Your task to perform on an android device: Clear all items from cart on target.com. Add apple airpods to the cart on target.com Image 0: 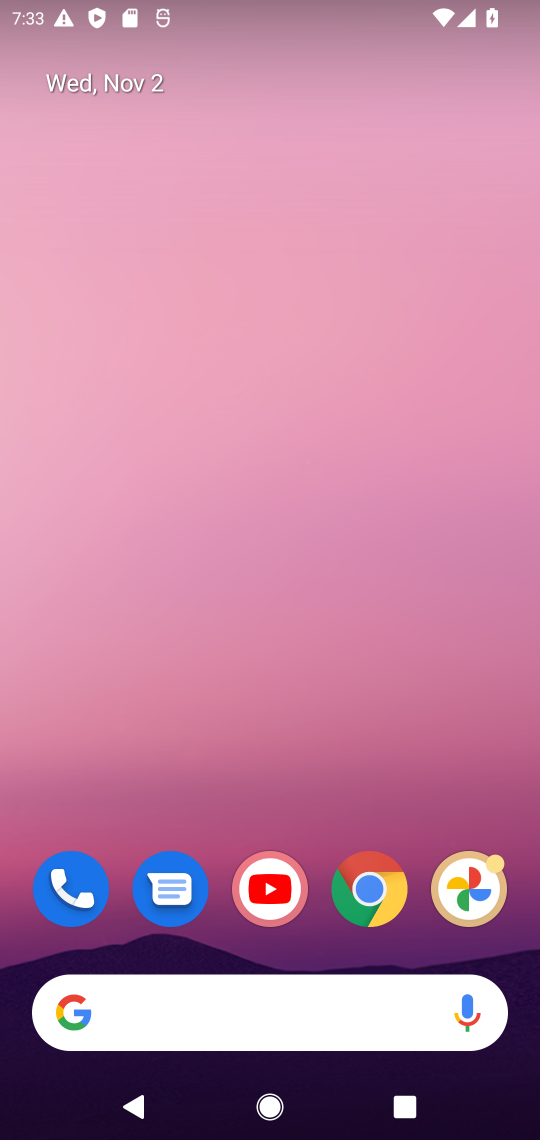
Step 0: press home button
Your task to perform on an android device: Clear all items from cart on target.com. Add apple airpods to the cart on target.com Image 1: 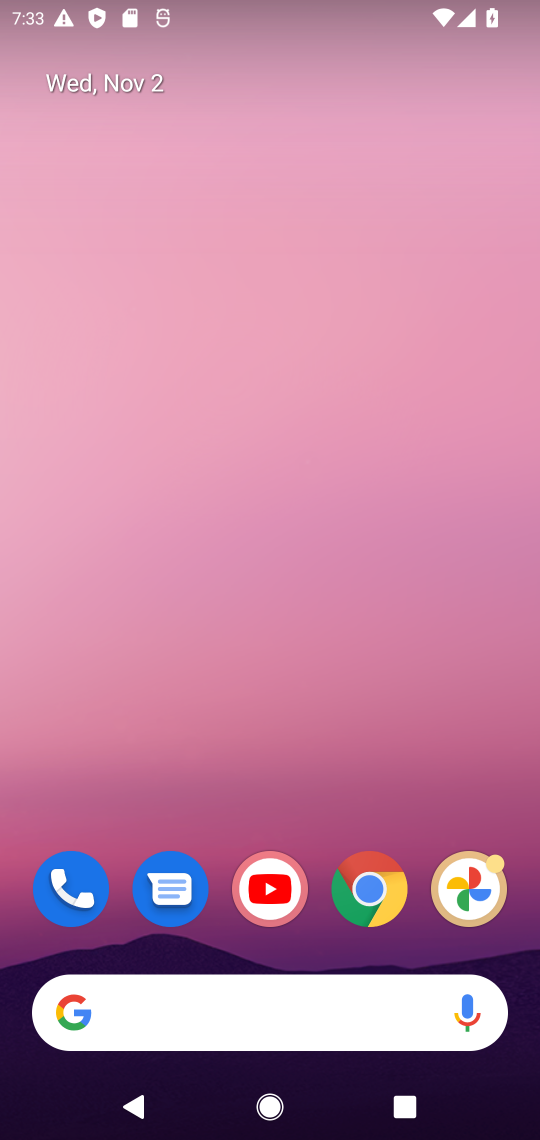
Step 1: drag from (310, 847) to (323, 45)
Your task to perform on an android device: Clear all items from cart on target.com. Add apple airpods to the cart on target.com Image 2: 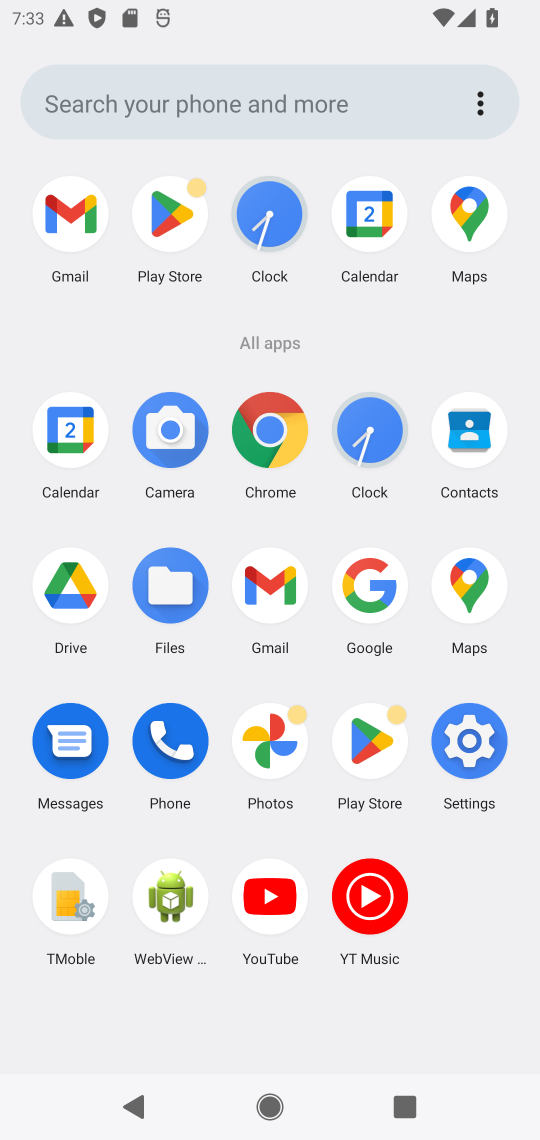
Step 2: click (266, 422)
Your task to perform on an android device: Clear all items from cart on target.com. Add apple airpods to the cart on target.com Image 3: 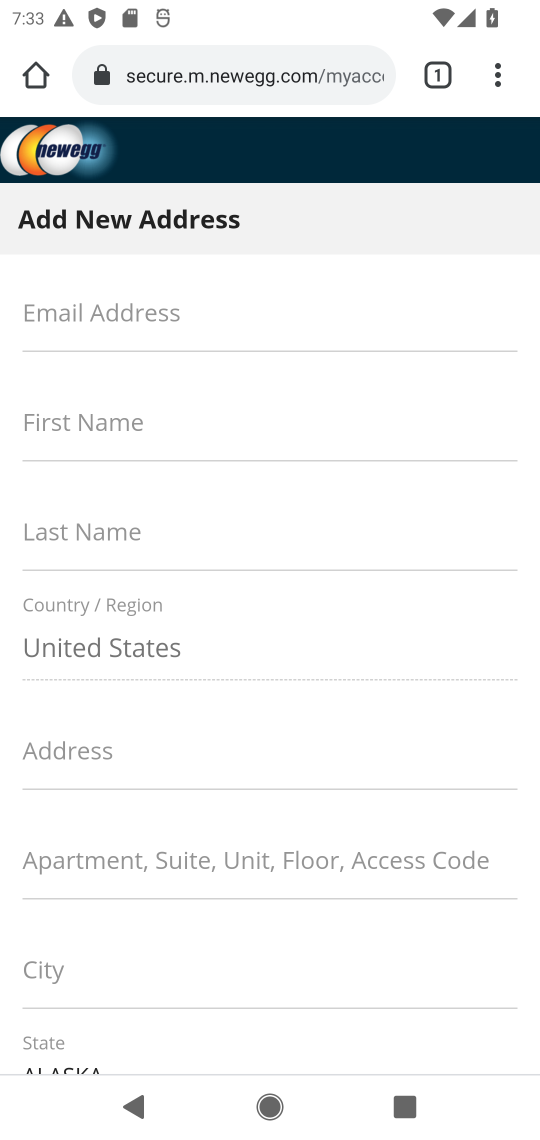
Step 3: click (210, 60)
Your task to perform on an android device: Clear all items from cart on target.com. Add apple airpods to the cart on target.com Image 4: 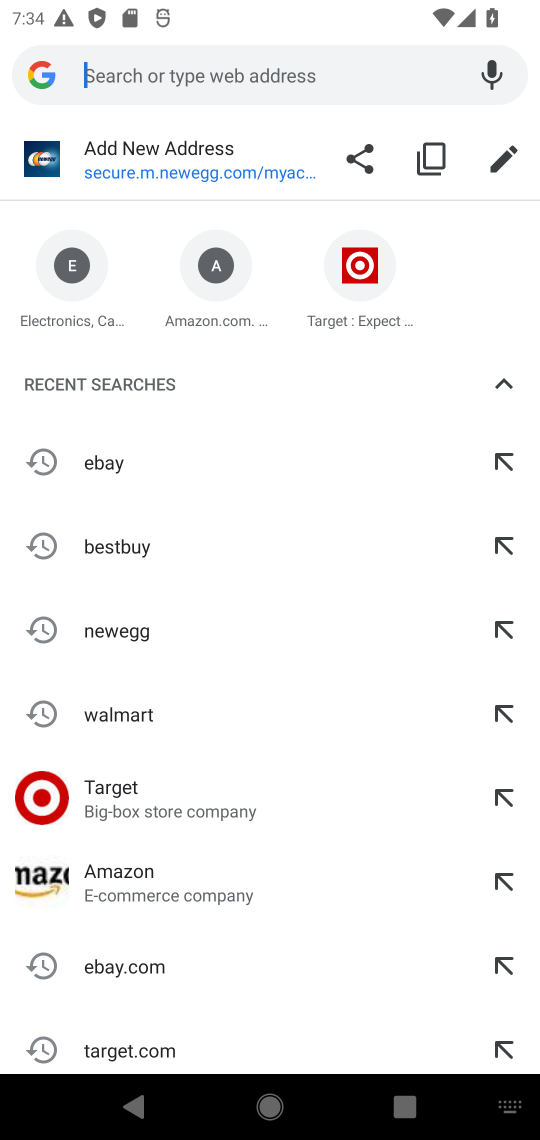
Step 4: type "target"
Your task to perform on an android device: Clear all items from cart on target.com. Add apple airpods to the cart on target.com Image 5: 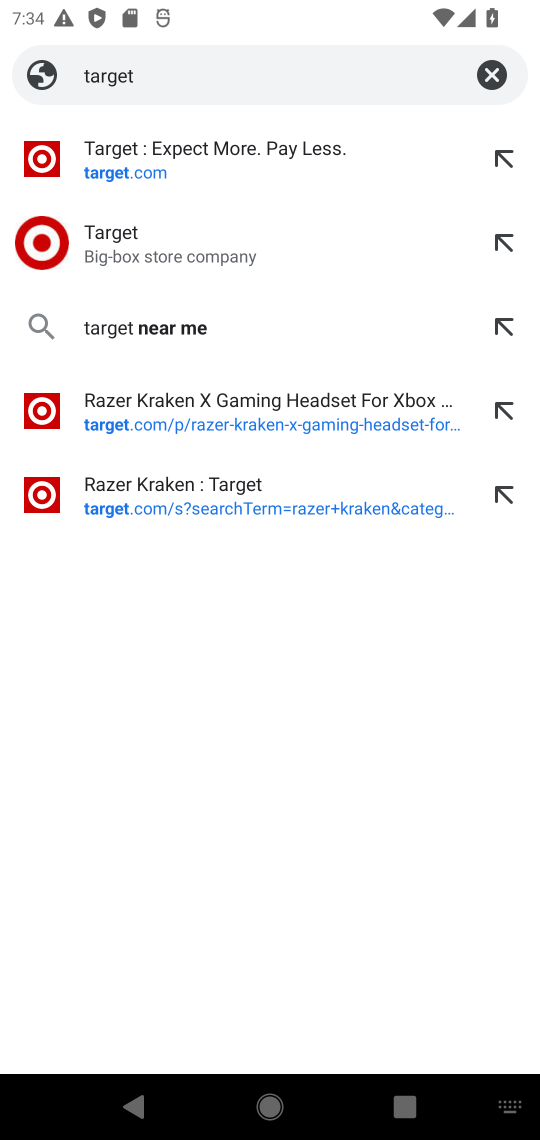
Step 5: click (211, 160)
Your task to perform on an android device: Clear all items from cart on target.com. Add apple airpods to the cart on target.com Image 6: 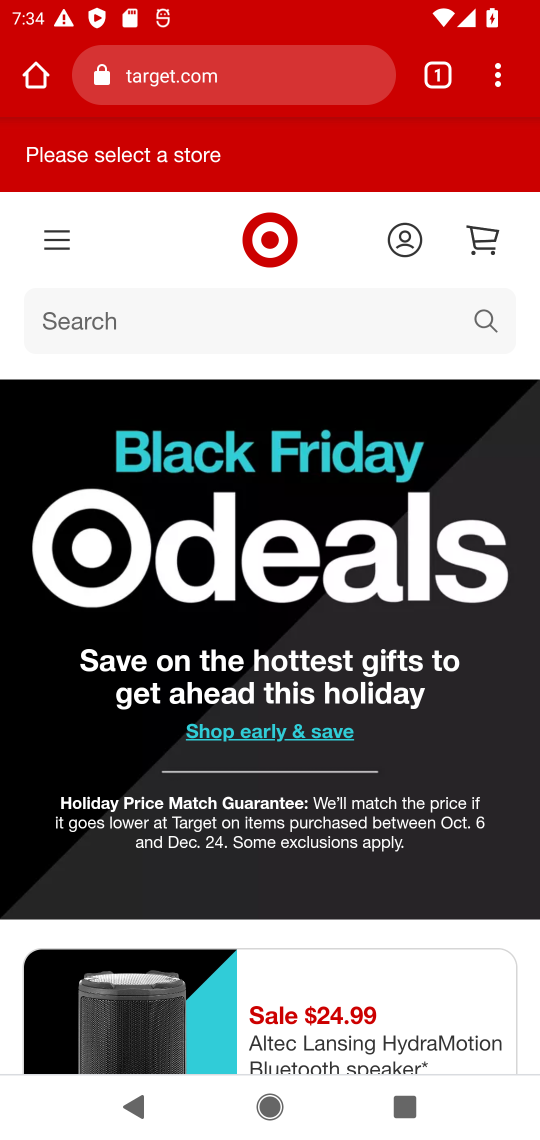
Step 6: click (92, 314)
Your task to perform on an android device: Clear all items from cart on target.com. Add apple airpods to the cart on target.com Image 7: 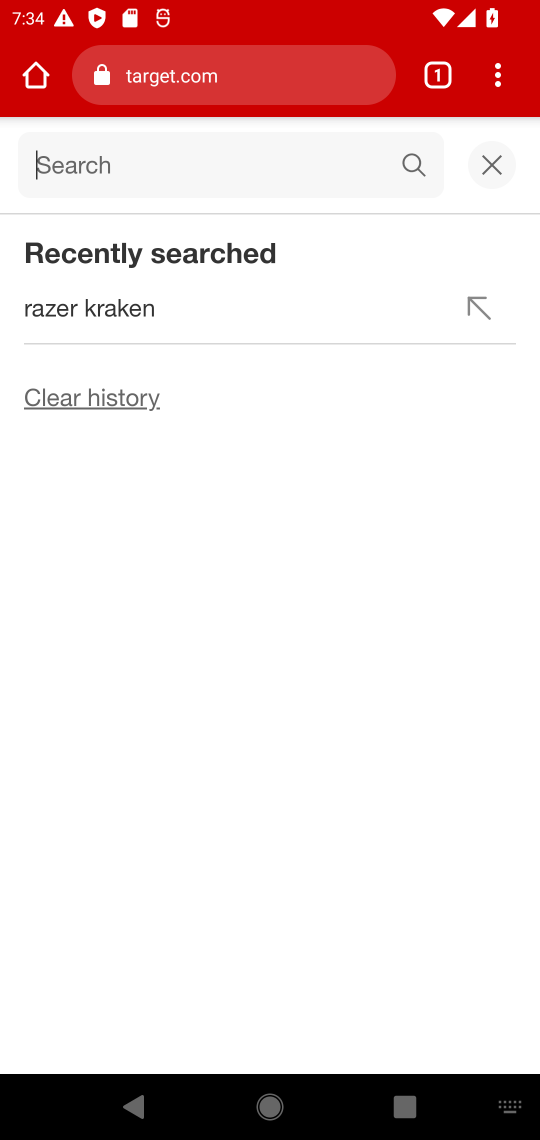
Step 7: type "apple airpods"
Your task to perform on an android device: Clear all items from cart on target.com. Add apple airpods to the cart on target.com Image 8: 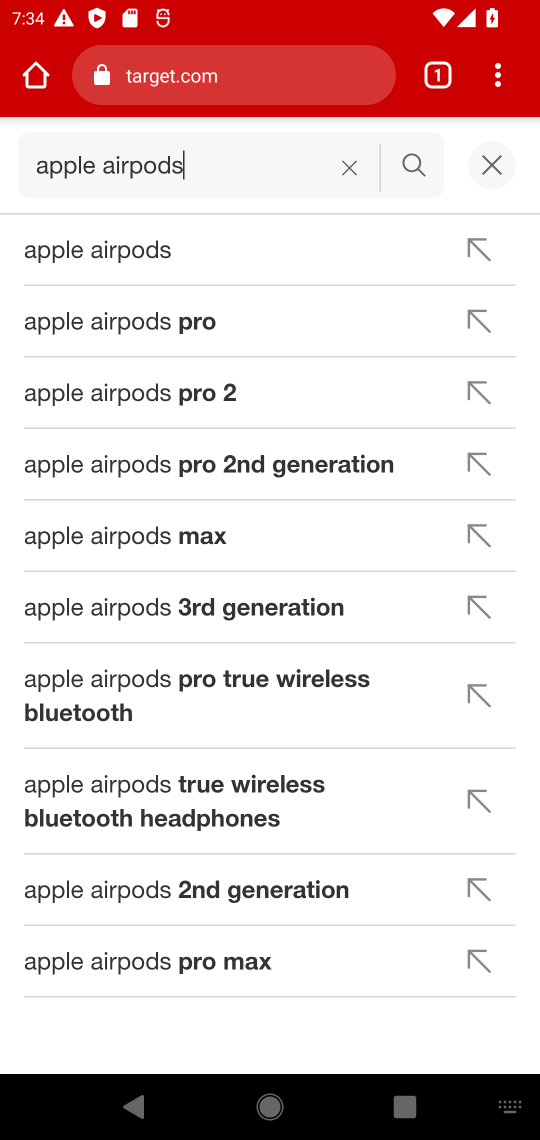
Step 8: click (184, 238)
Your task to perform on an android device: Clear all items from cart on target.com. Add apple airpods to the cart on target.com Image 9: 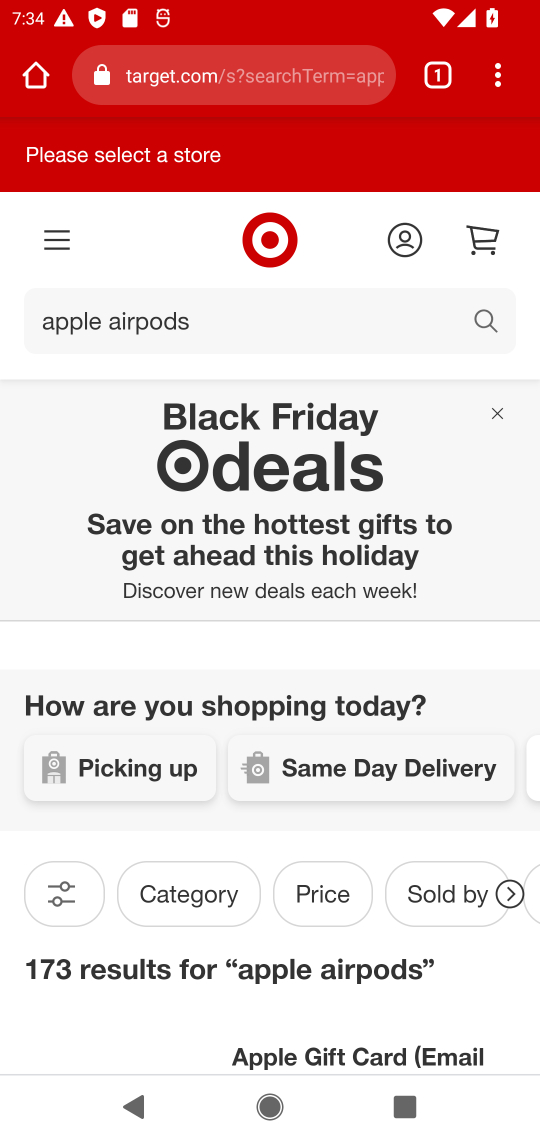
Step 9: drag from (262, 836) to (289, 542)
Your task to perform on an android device: Clear all items from cart on target.com. Add apple airpods to the cart on target.com Image 10: 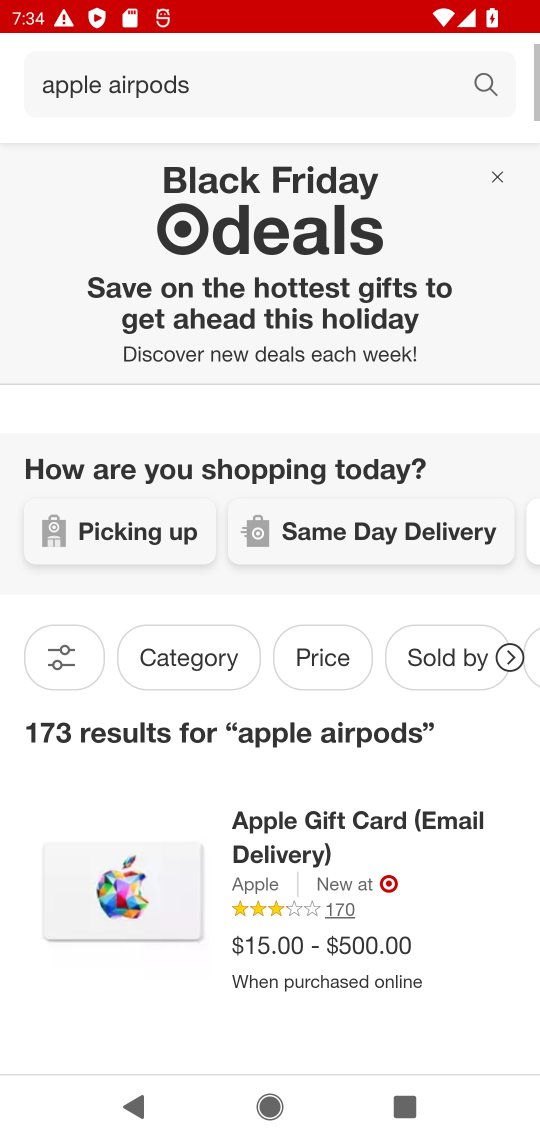
Step 10: drag from (289, 374) to (289, 245)
Your task to perform on an android device: Clear all items from cart on target.com. Add apple airpods to the cart on target.com Image 11: 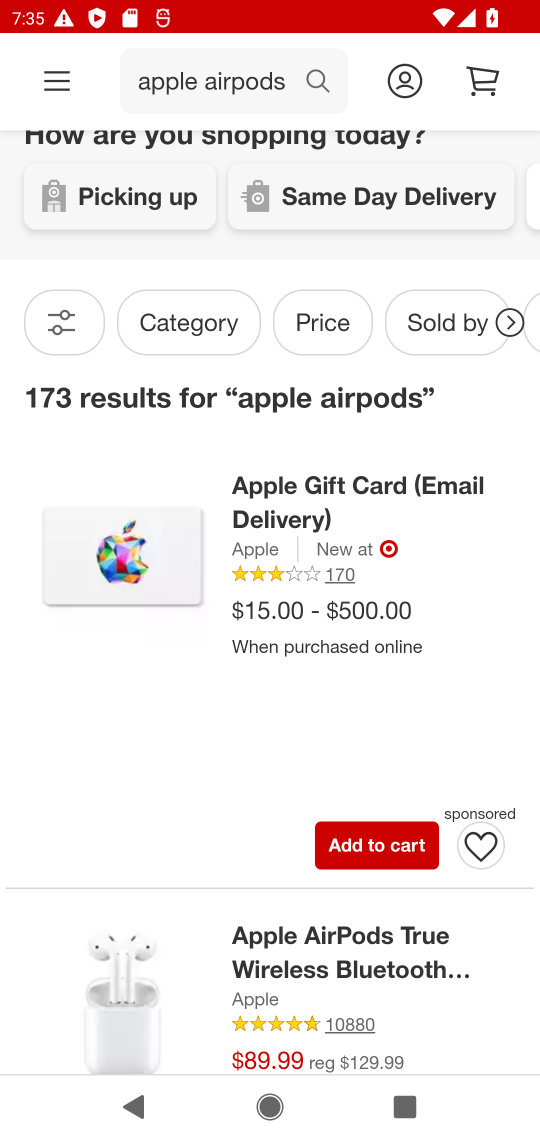
Step 11: drag from (260, 904) to (236, 233)
Your task to perform on an android device: Clear all items from cart on target.com. Add apple airpods to the cart on target.com Image 12: 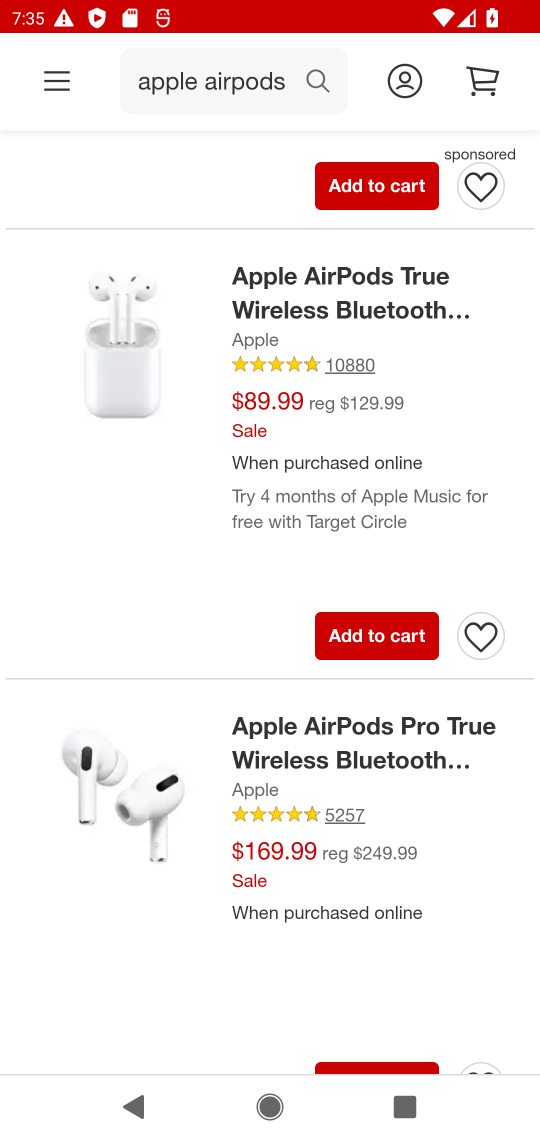
Step 12: drag from (254, 238) to (309, 798)
Your task to perform on an android device: Clear all items from cart on target.com. Add apple airpods to the cart on target.com Image 13: 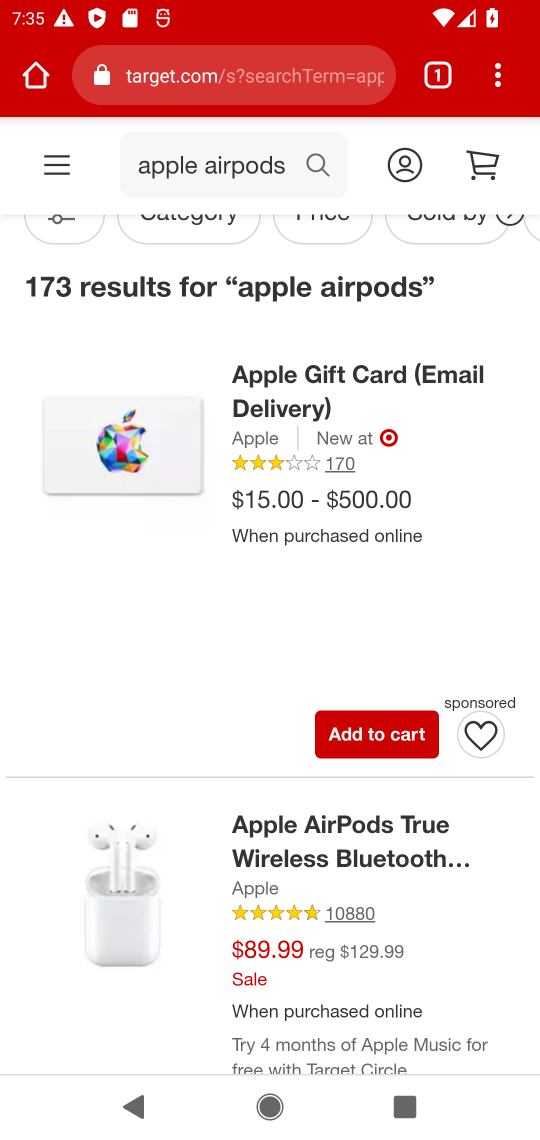
Step 13: drag from (260, 786) to (263, 382)
Your task to perform on an android device: Clear all items from cart on target.com. Add apple airpods to the cart on target.com Image 14: 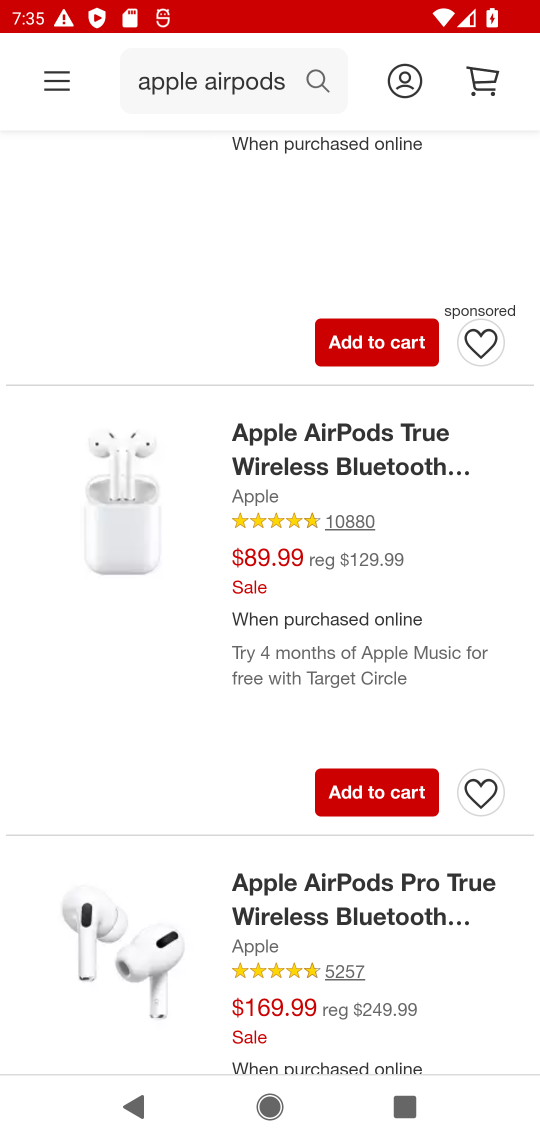
Step 14: click (380, 791)
Your task to perform on an android device: Clear all items from cart on target.com. Add apple airpods to the cart on target.com Image 15: 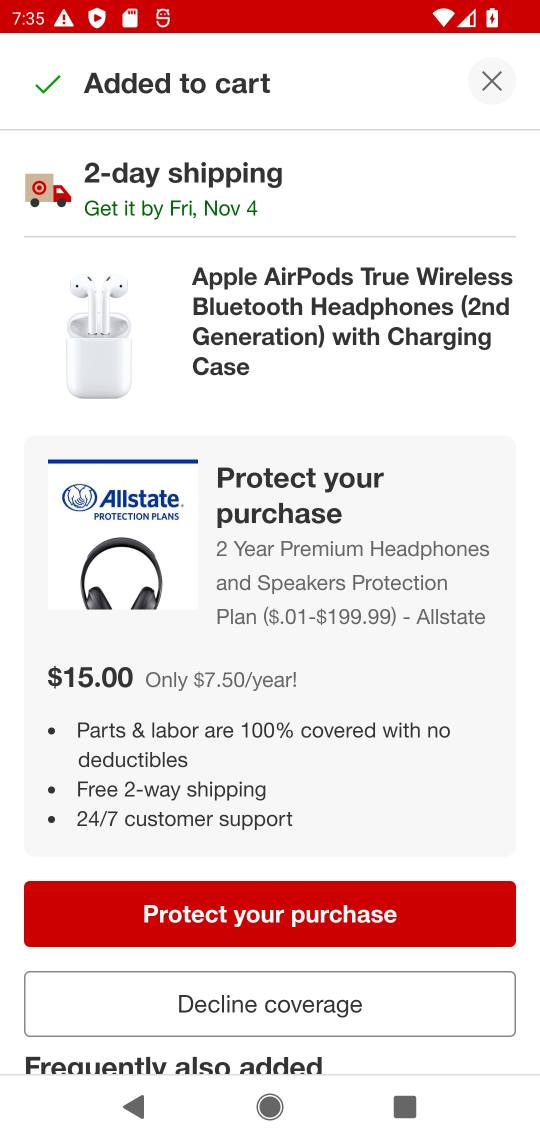
Step 15: click (495, 78)
Your task to perform on an android device: Clear all items from cart on target.com. Add apple airpods to the cart on target.com Image 16: 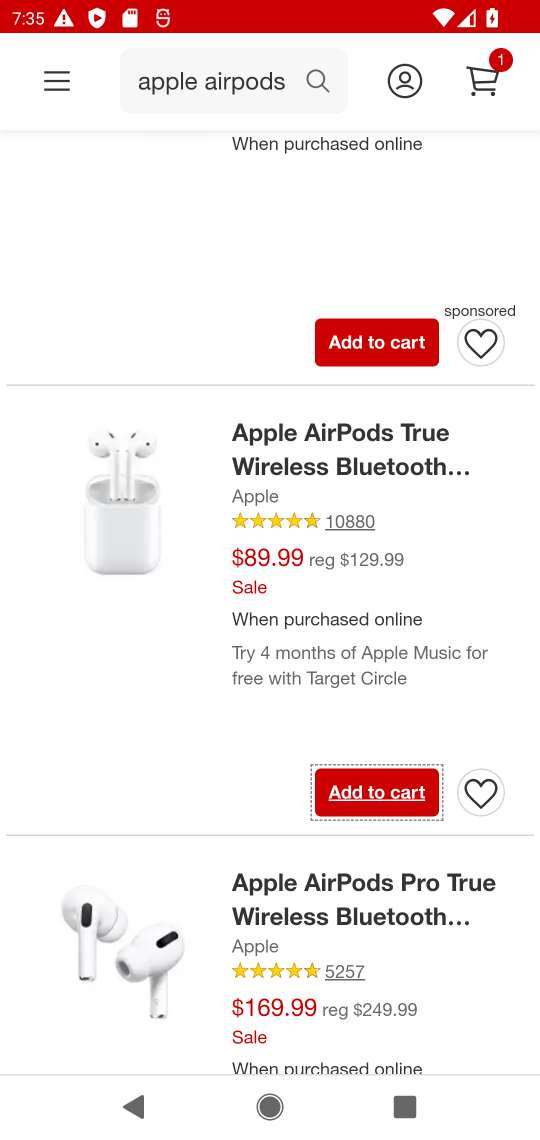
Step 16: click (497, 74)
Your task to perform on an android device: Clear all items from cart on target.com. Add apple airpods to the cart on target.com Image 17: 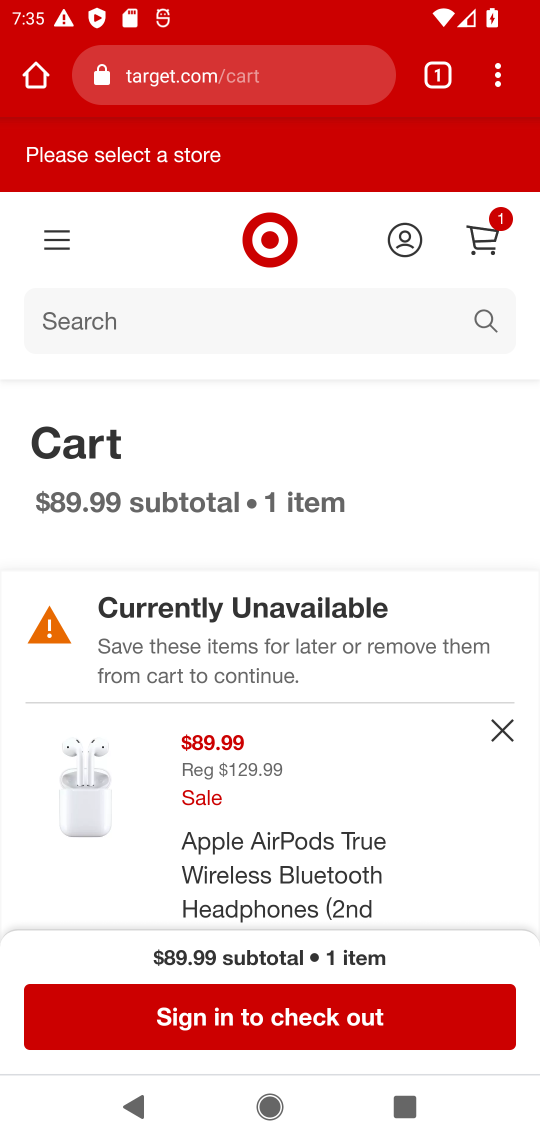
Step 17: click (503, 735)
Your task to perform on an android device: Clear all items from cart on target.com. Add apple airpods to the cart on target.com Image 18: 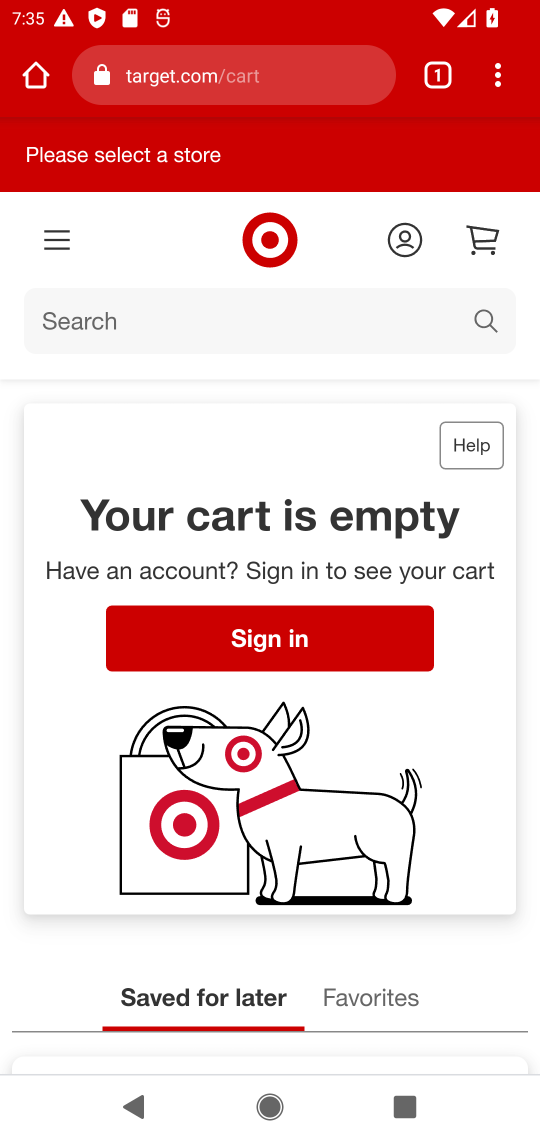
Step 18: task complete